Your task to perform on an android device: What is the news today? Image 0: 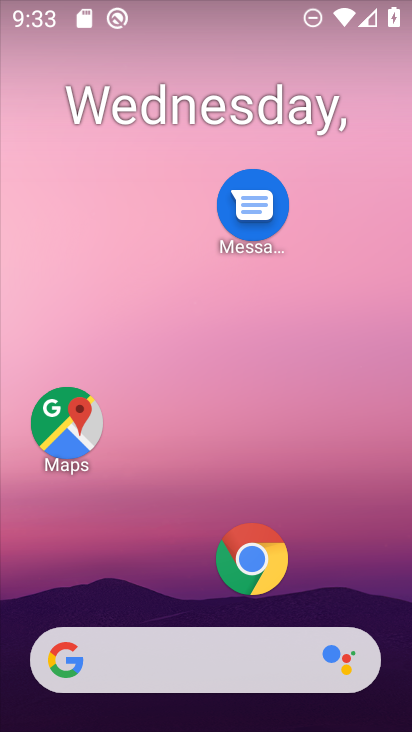
Step 0: drag from (139, 603) to (210, 229)
Your task to perform on an android device: What is the news today? Image 1: 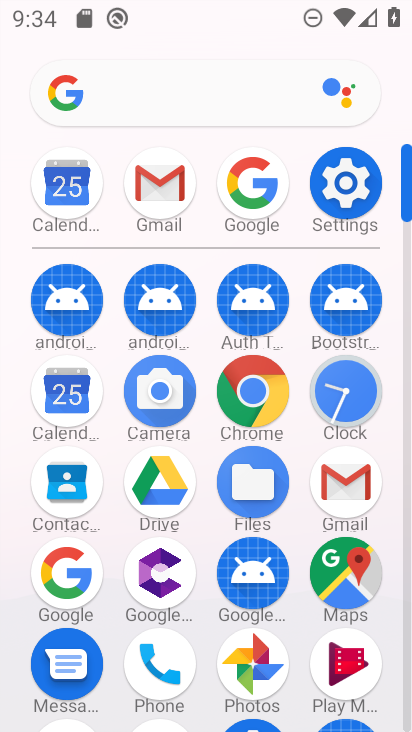
Step 1: drag from (216, 520) to (225, 352)
Your task to perform on an android device: What is the news today? Image 2: 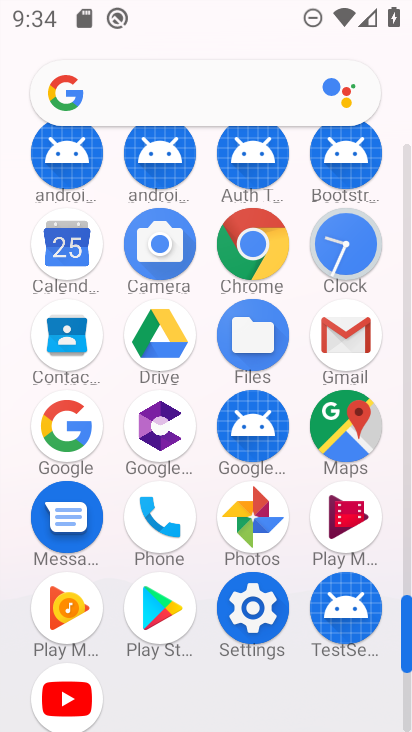
Step 2: click (63, 444)
Your task to perform on an android device: What is the news today? Image 3: 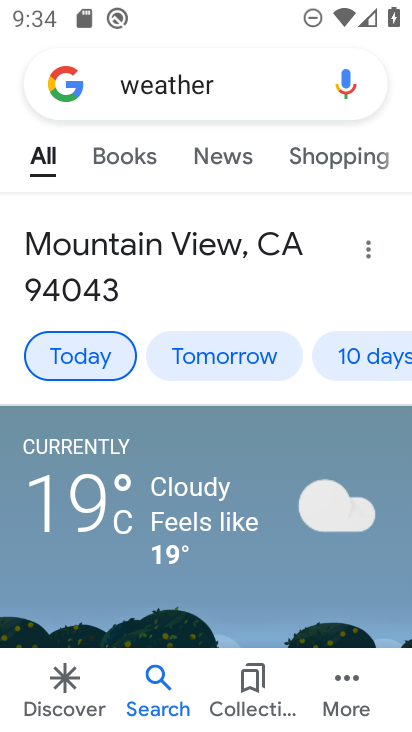
Step 3: click (238, 85)
Your task to perform on an android device: What is the news today? Image 4: 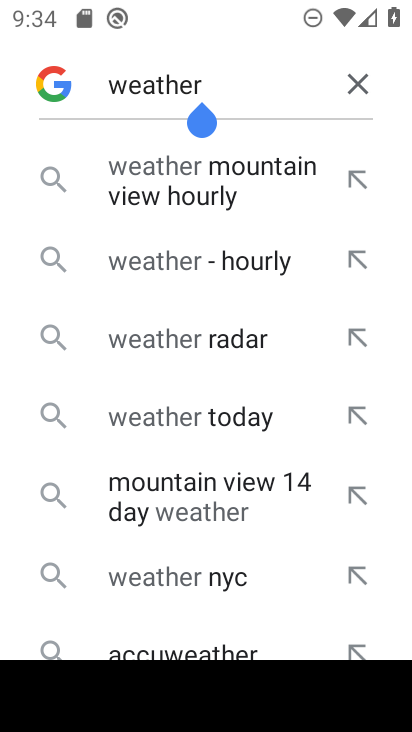
Step 4: click (371, 91)
Your task to perform on an android device: What is the news today? Image 5: 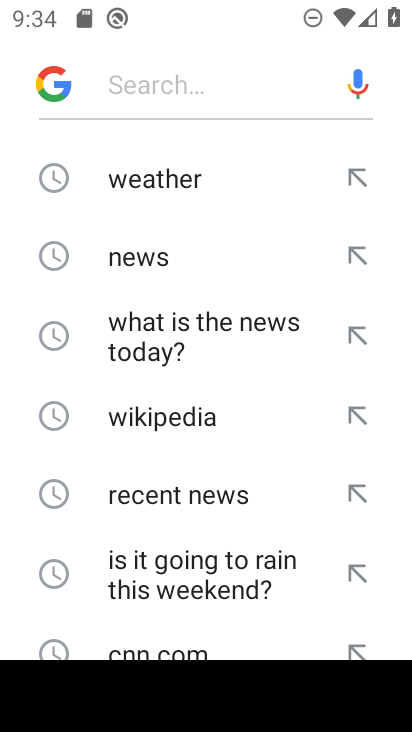
Step 5: click (163, 254)
Your task to perform on an android device: What is the news today? Image 6: 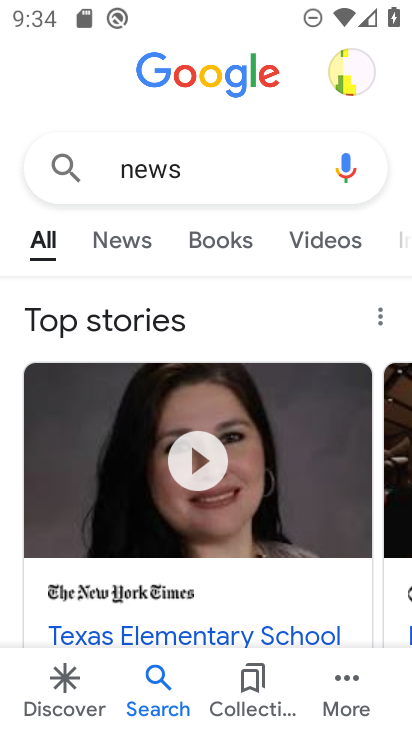
Step 6: task complete